Your task to perform on an android device: Open Google Chrome and open the bookmarks view Image 0: 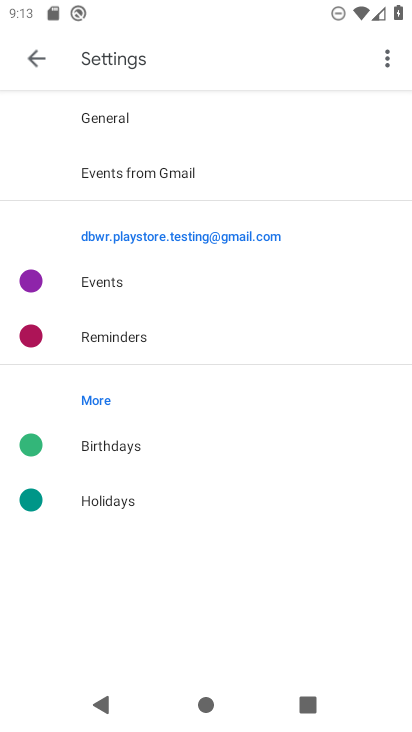
Step 0: press home button
Your task to perform on an android device: Open Google Chrome and open the bookmarks view Image 1: 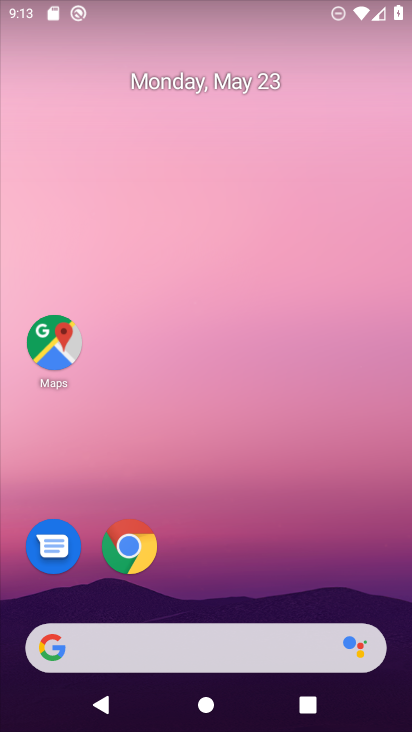
Step 1: click (132, 540)
Your task to perform on an android device: Open Google Chrome and open the bookmarks view Image 2: 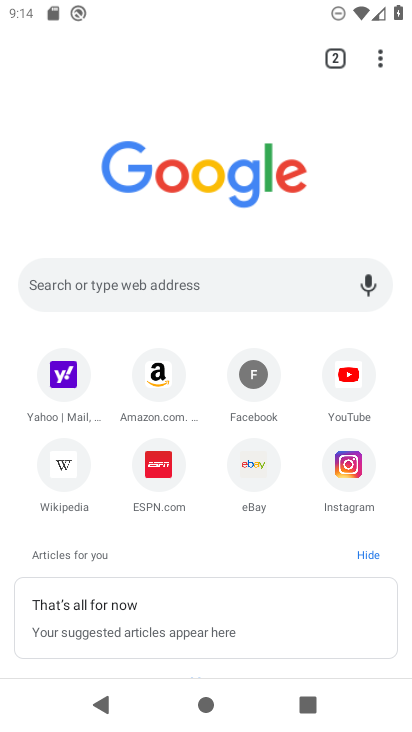
Step 2: task complete